Your task to perform on an android device: Open Google Maps and go to "Timeline" Image 0: 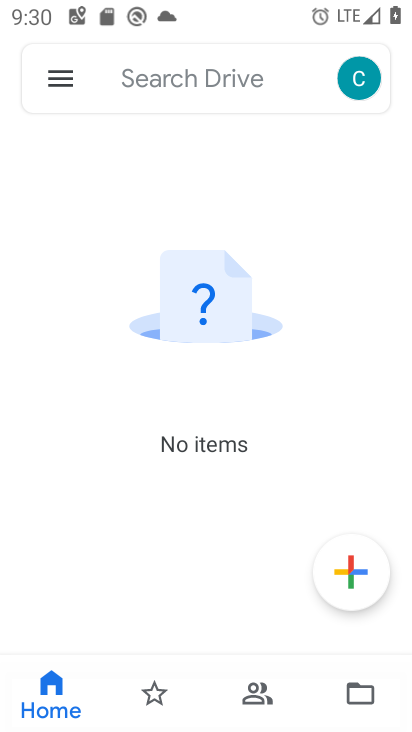
Step 0: press home button
Your task to perform on an android device: Open Google Maps and go to "Timeline" Image 1: 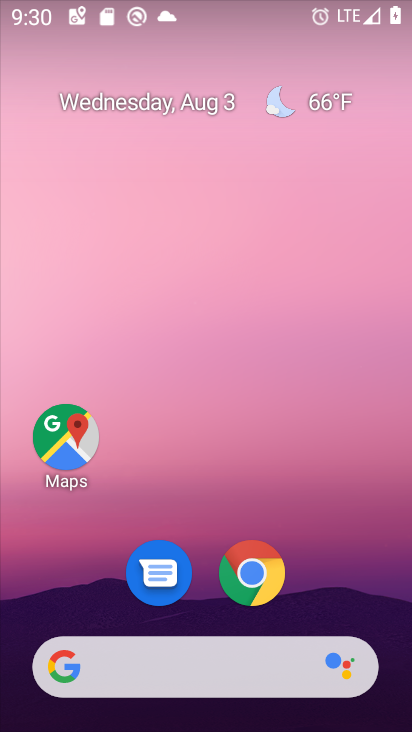
Step 1: click (59, 442)
Your task to perform on an android device: Open Google Maps and go to "Timeline" Image 2: 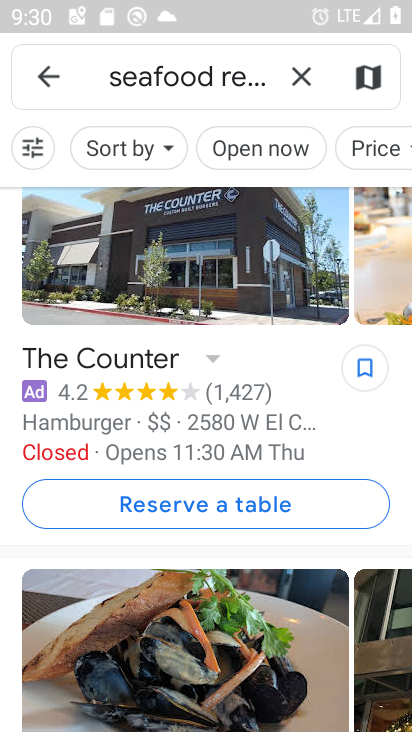
Step 2: click (310, 84)
Your task to perform on an android device: Open Google Maps and go to "Timeline" Image 3: 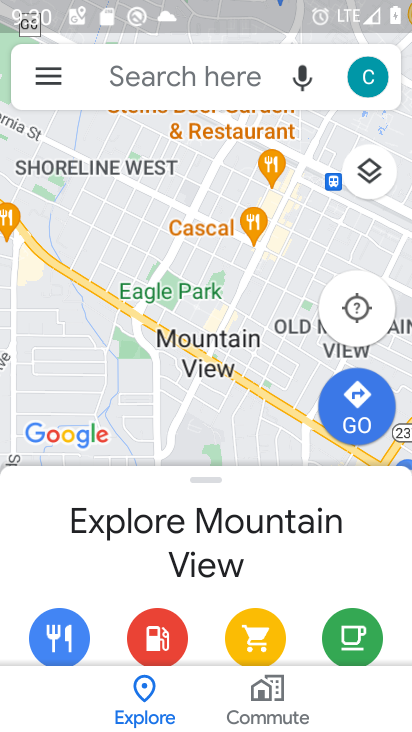
Step 3: click (43, 77)
Your task to perform on an android device: Open Google Maps and go to "Timeline" Image 4: 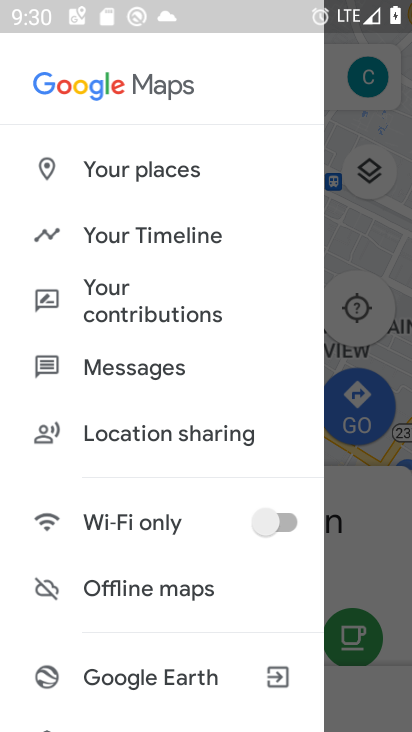
Step 4: click (106, 233)
Your task to perform on an android device: Open Google Maps and go to "Timeline" Image 5: 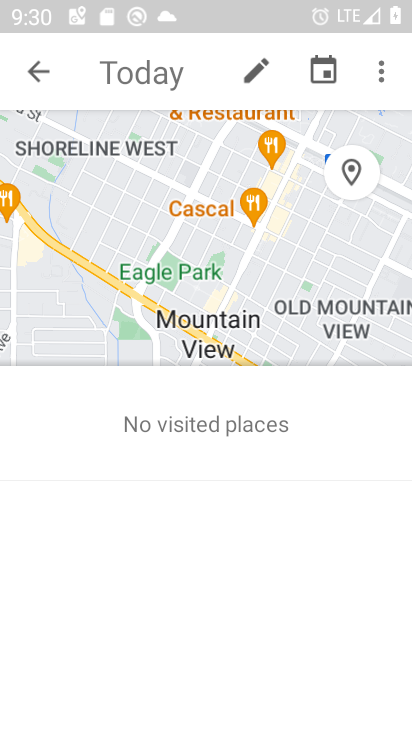
Step 5: task complete